Your task to perform on an android device: Search for the best rated headphones on Amazon. Image 0: 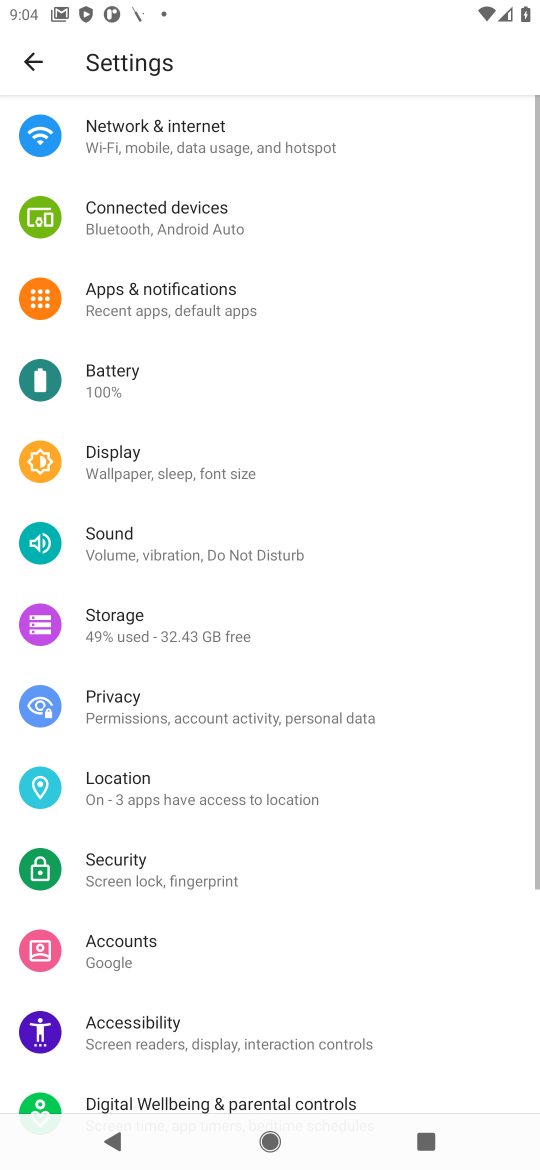
Step 0: press home button
Your task to perform on an android device: Search for the best rated headphones on Amazon. Image 1: 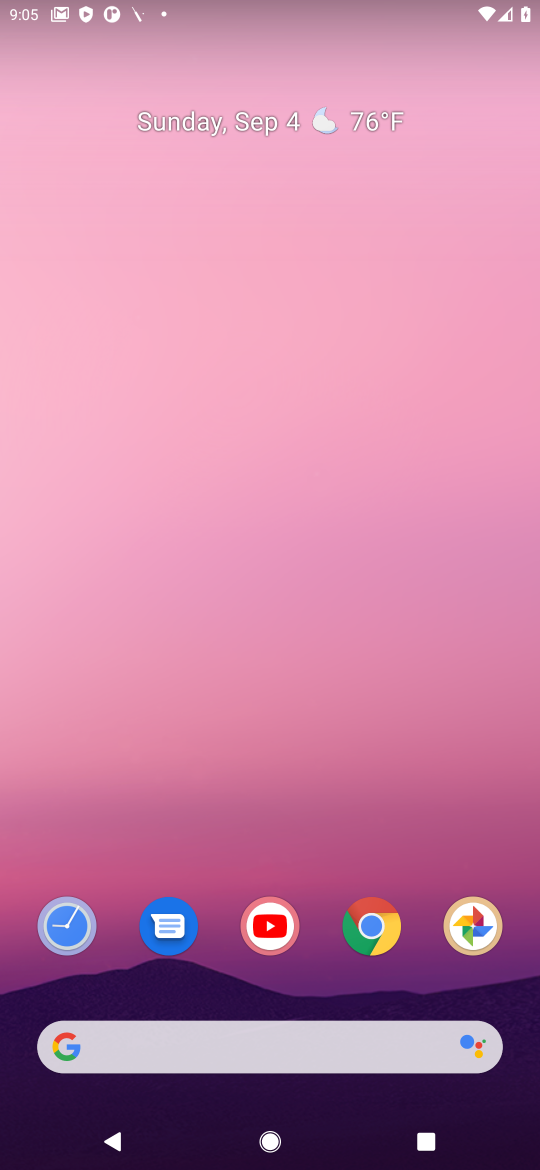
Step 1: click (206, 1062)
Your task to perform on an android device: Search for the best rated headphones on Amazon. Image 2: 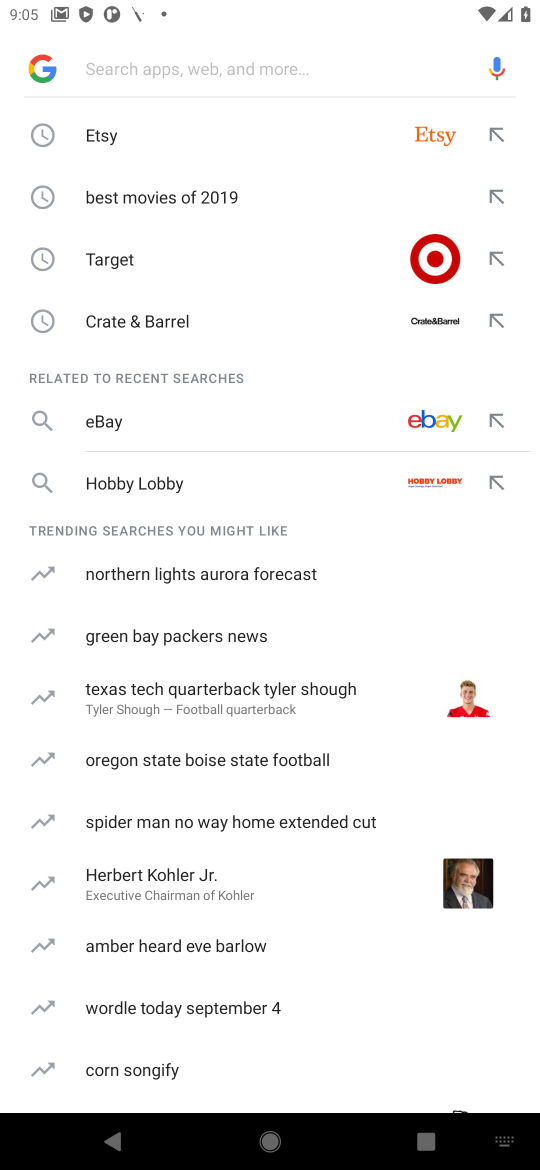
Step 2: type "amazon"
Your task to perform on an android device: Search for the best rated headphones on Amazon. Image 3: 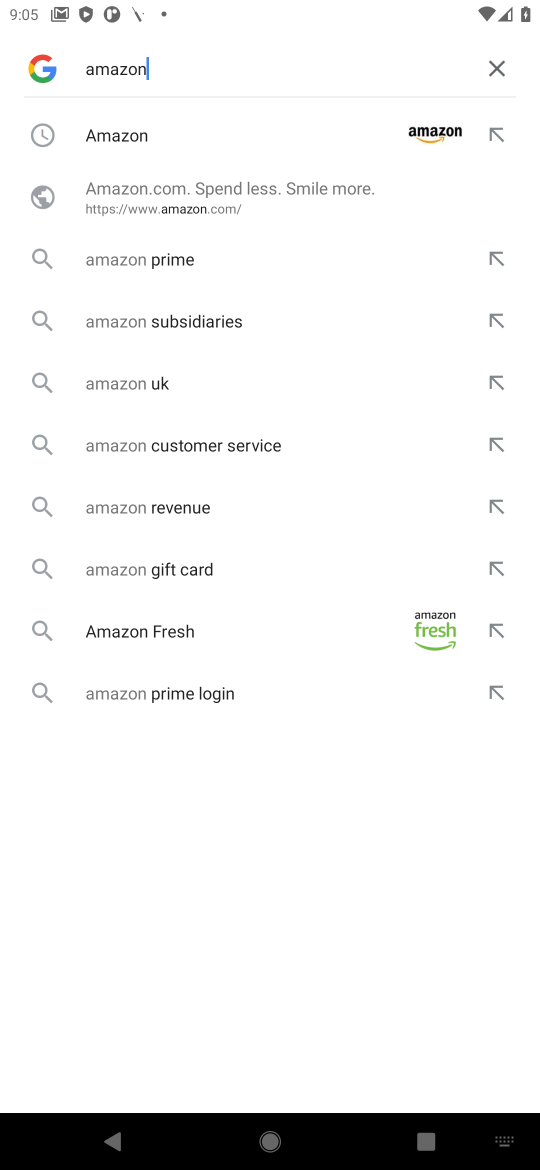
Step 3: click (143, 145)
Your task to perform on an android device: Search for the best rated headphones on Amazon. Image 4: 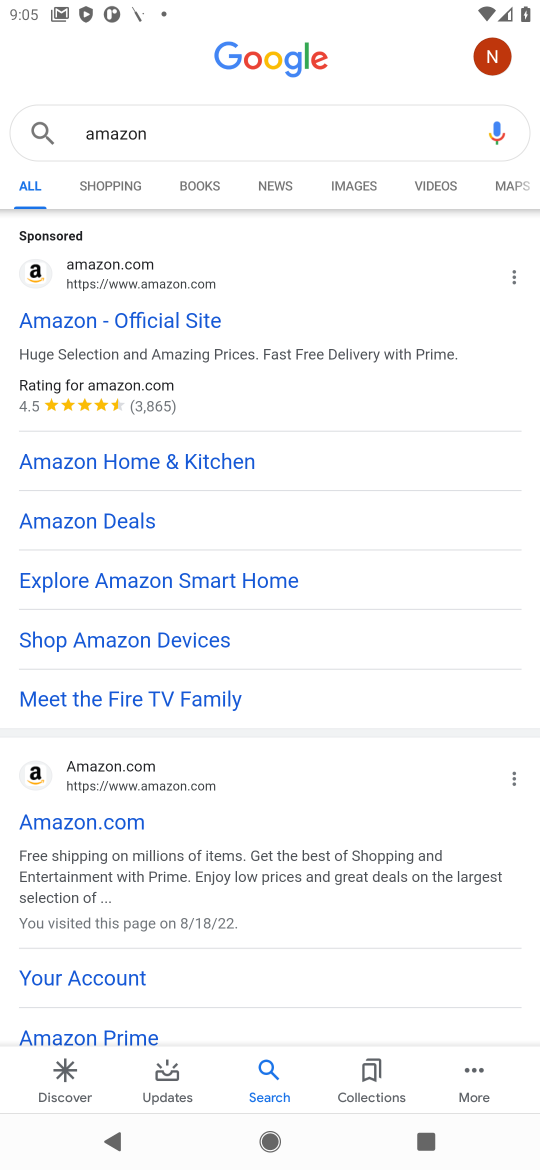
Step 4: click (70, 321)
Your task to perform on an android device: Search for the best rated headphones on Amazon. Image 5: 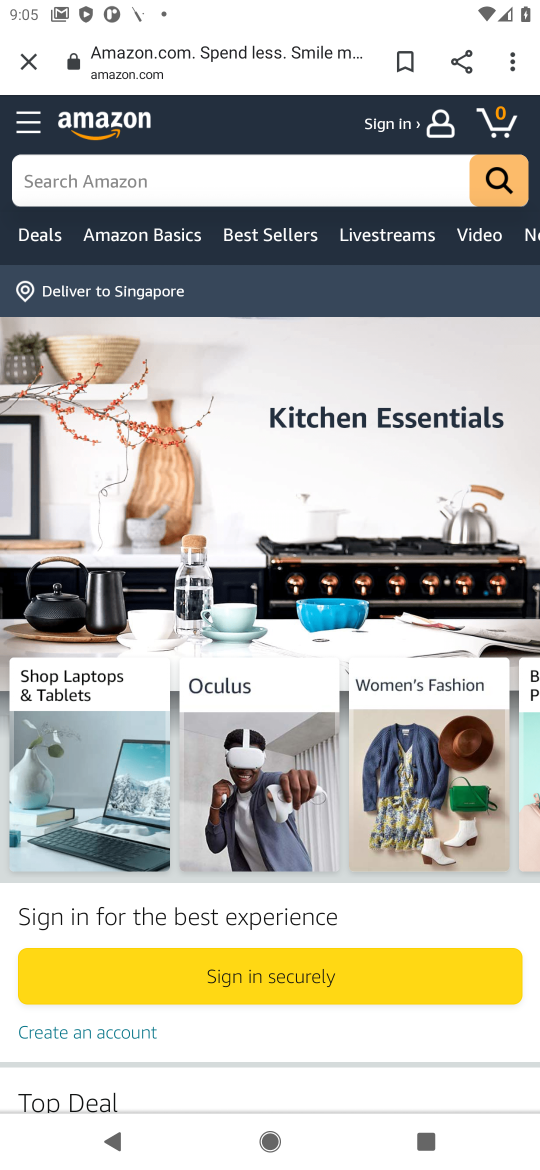
Step 5: click (64, 176)
Your task to perform on an android device: Search for the best rated headphones on Amazon. Image 6: 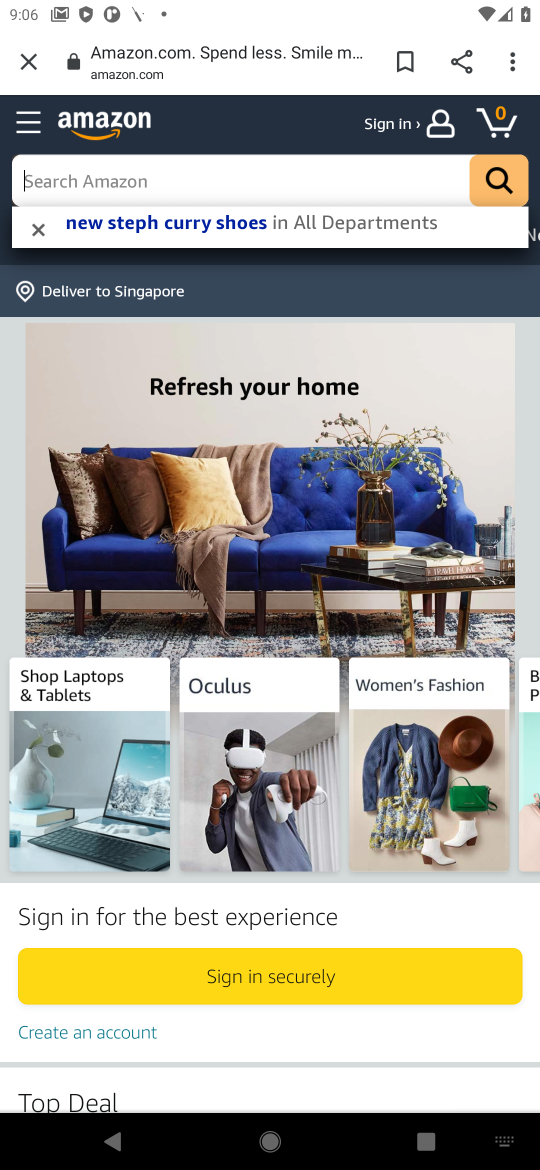
Step 6: type "best rated headphones"
Your task to perform on an android device: Search for the best rated headphones on Amazon. Image 7: 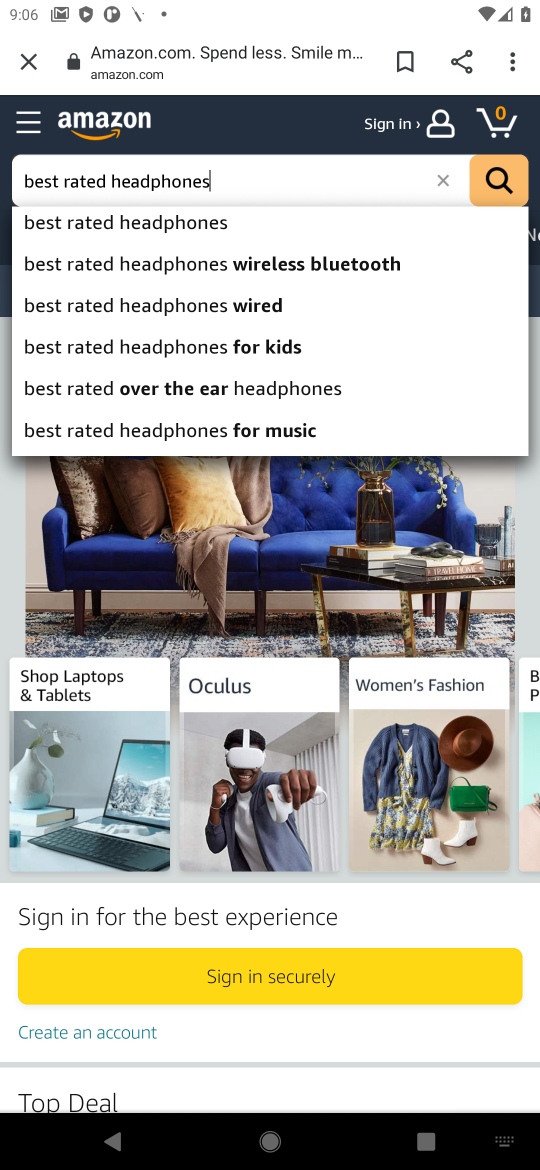
Step 7: click (158, 219)
Your task to perform on an android device: Search for the best rated headphones on Amazon. Image 8: 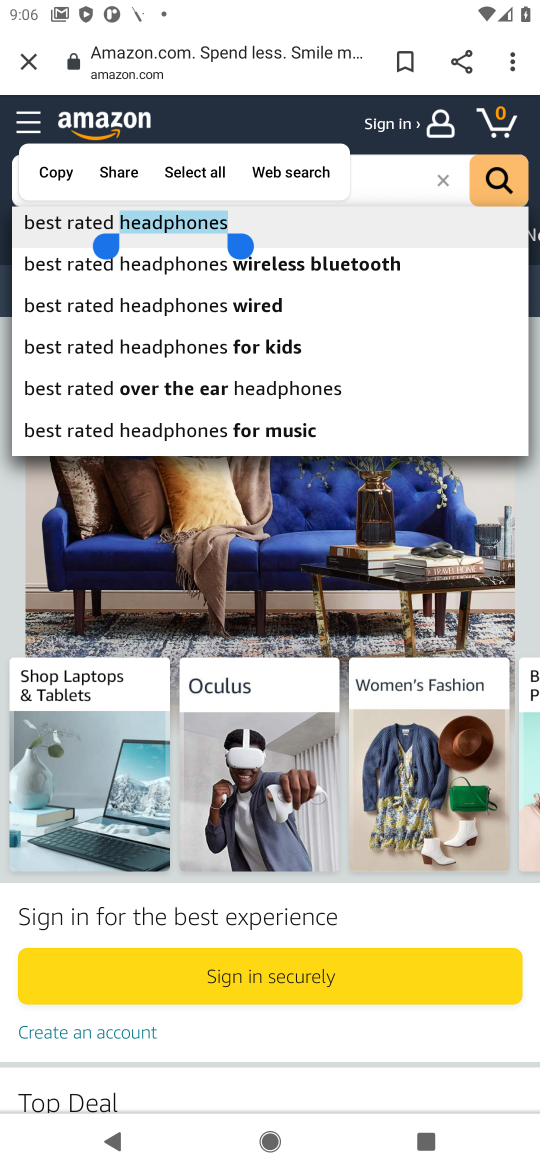
Step 8: click (490, 173)
Your task to perform on an android device: Search for the best rated headphones on Amazon. Image 9: 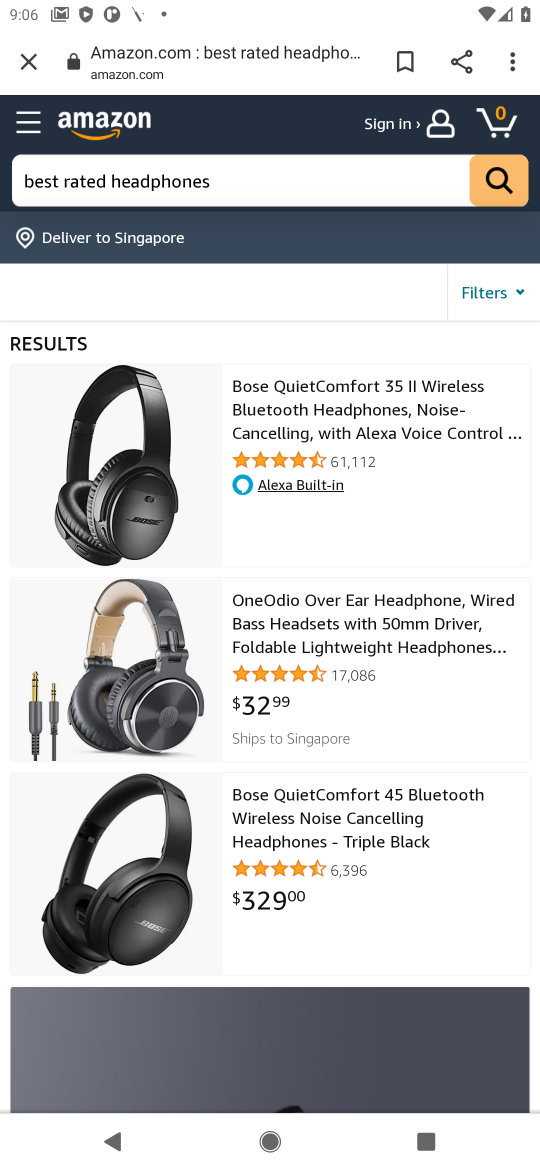
Step 9: task complete